Your task to perform on an android device: What's the weather going to be this weekend? Image 0: 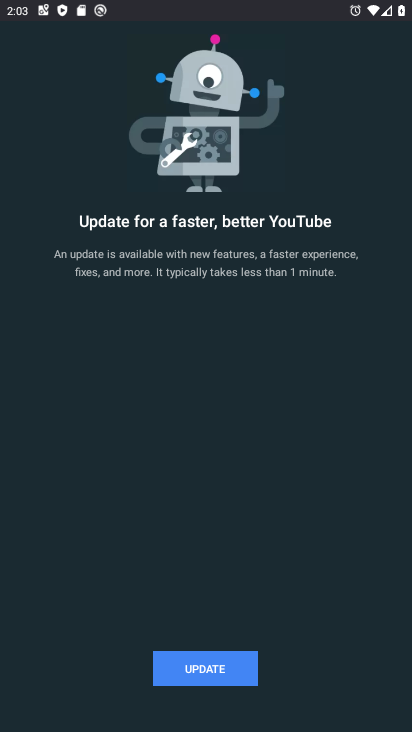
Step 0: press home button
Your task to perform on an android device: What's the weather going to be this weekend? Image 1: 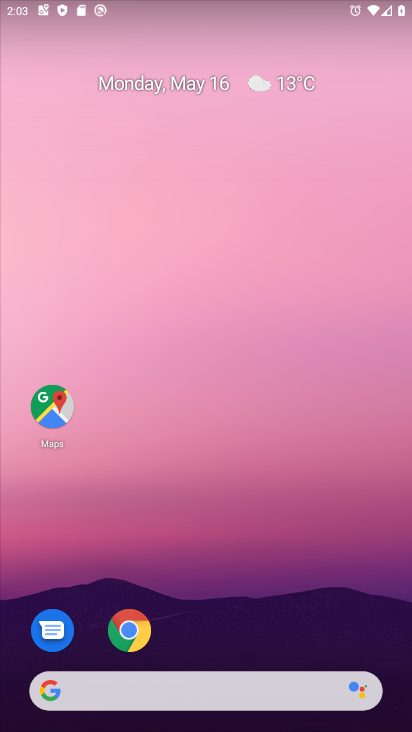
Step 1: click (227, 675)
Your task to perform on an android device: What's the weather going to be this weekend? Image 2: 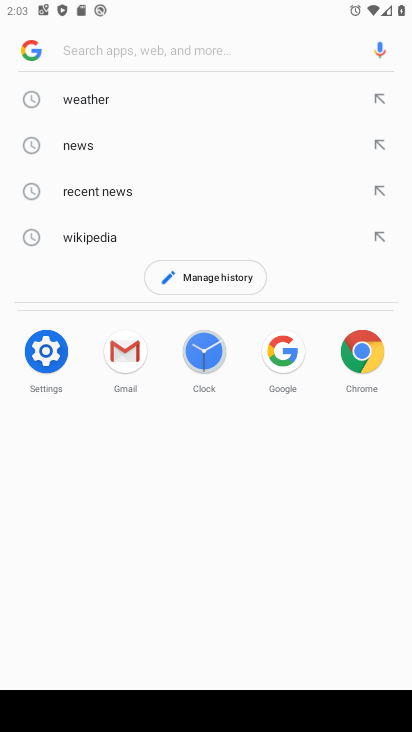
Step 2: click (85, 103)
Your task to perform on an android device: What's the weather going to be this weekend? Image 3: 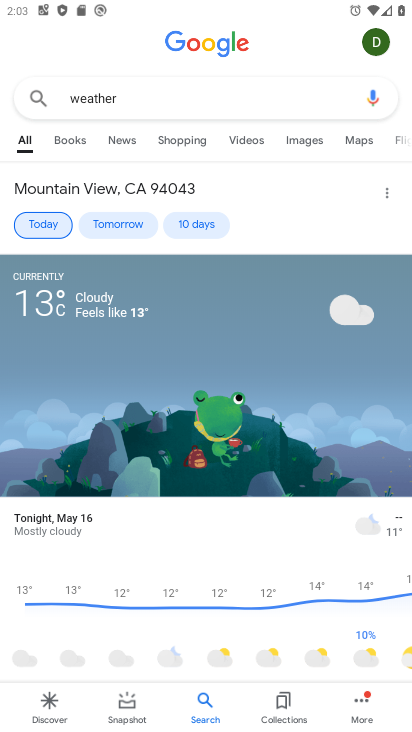
Step 3: click (186, 223)
Your task to perform on an android device: What's the weather going to be this weekend? Image 4: 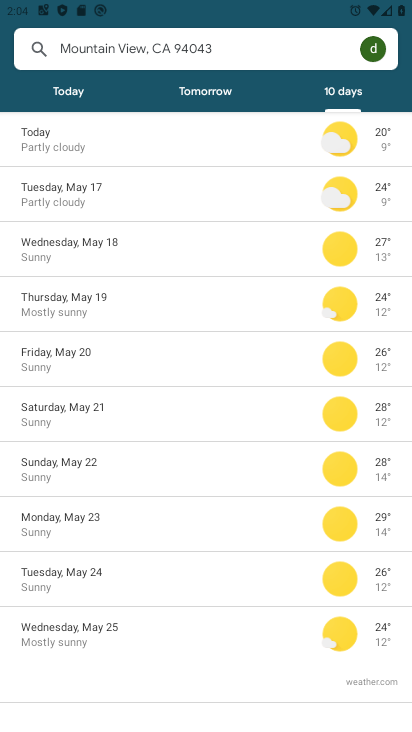
Step 4: task complete